Your task to perform on an android device: toggle show notifications on the lock screen Image 0: 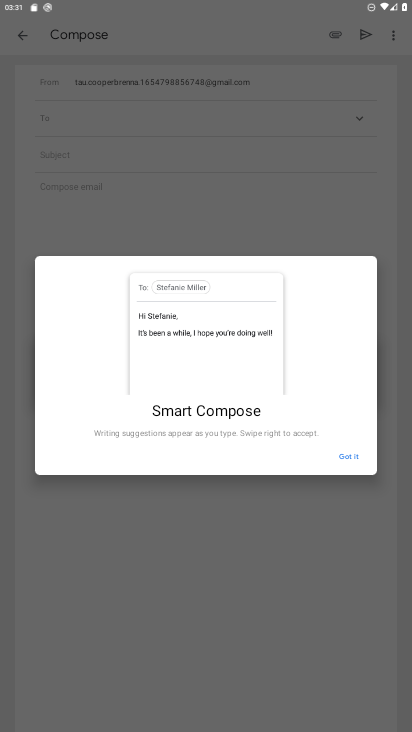
Step 0: press home button
Your task to perform on an android device: toggle show notifications on the lock screen Image 1: 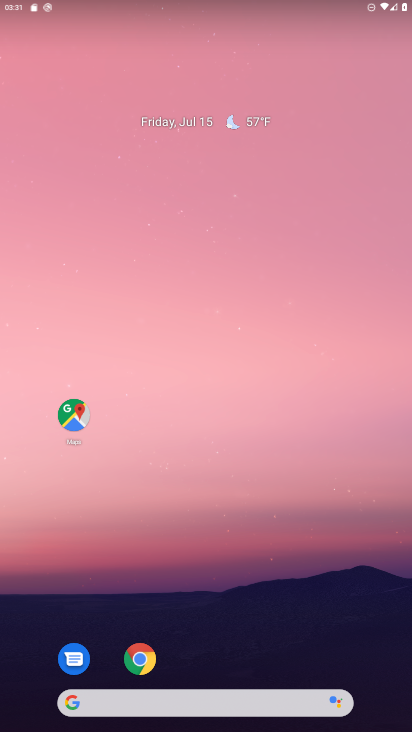
Step 1: drag from (219, 645) to (273, 9)
Your task to perform on an android device: toggle show notifications on the lock screen Image 2: 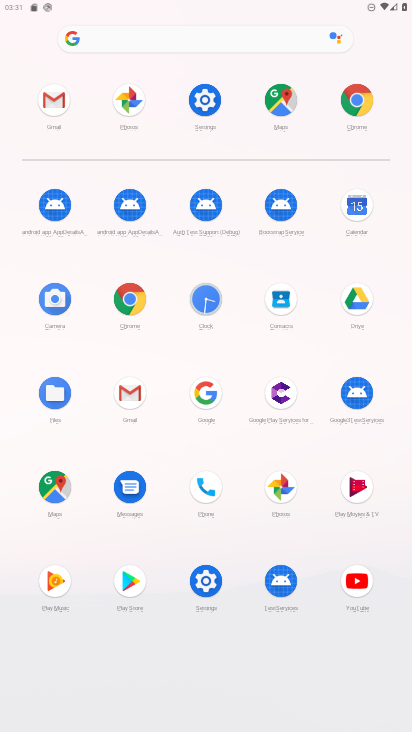
Step 2: click (205, 583)
Your task to perform on an android device: toggle show notifications on the lock screen Image 3: 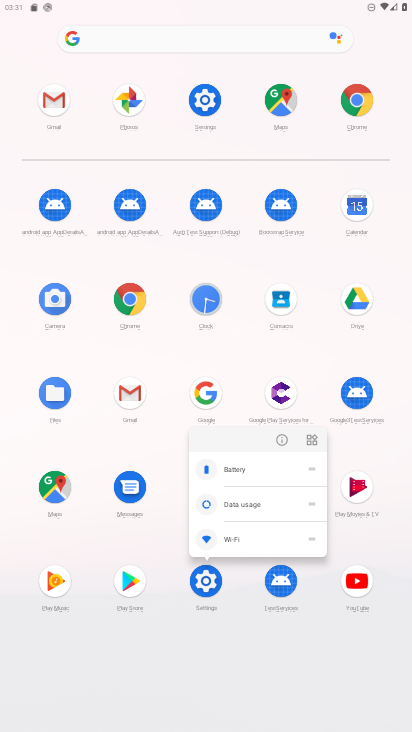
Step 3: click (205, 584)
Your task to perform on an android device: toggle show notifications on the lock screen Image 4: 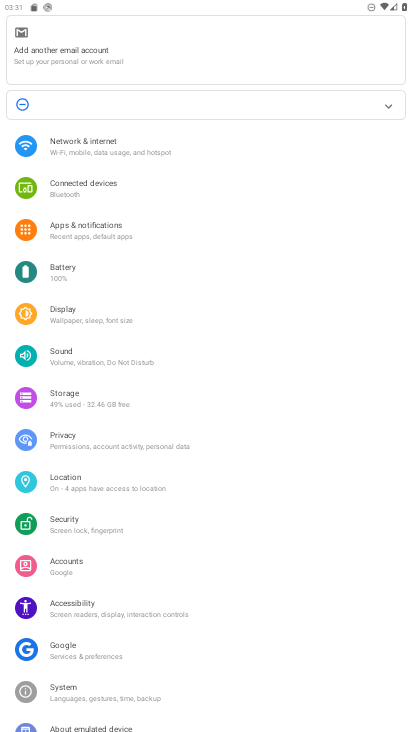
Step 4: click (129, 239)
Your task to perform on an android device: toggle show notifications on the lock screen Image 5: 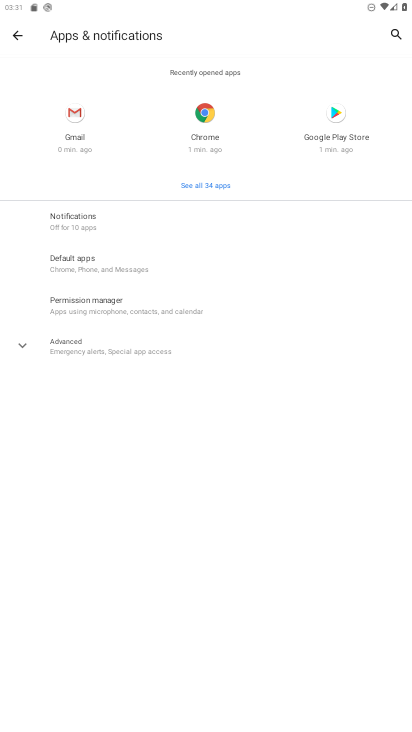
Step 5: click (88, 219)
Your task to perform on an android device: toggle show notifications on the lock screen Image 6: 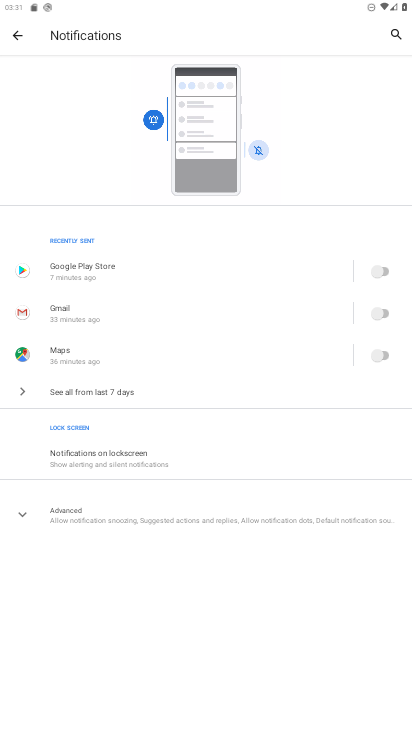
Step 6: click (168, 465)
Your task to perform on an android device: toggle show notifications on the lock screen Image 7: 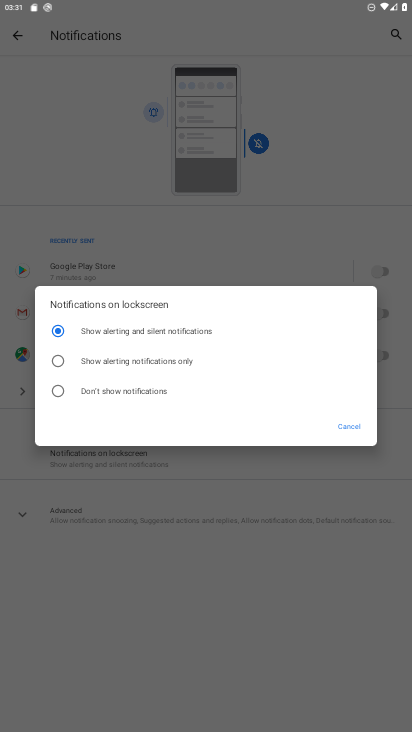
Step 7: click (67, 395)
Your task to perform on an android device: toggle show notifications on the lock screen Image 8: 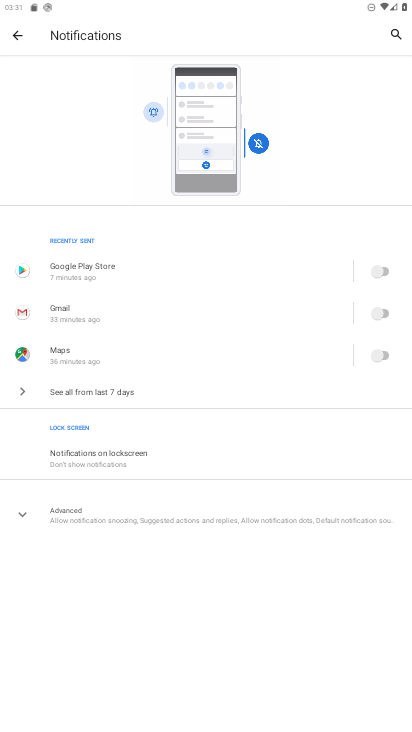
Step 8: task complete